Your task to perform on an android device: choose inbox layout in the gmail app Image 0: 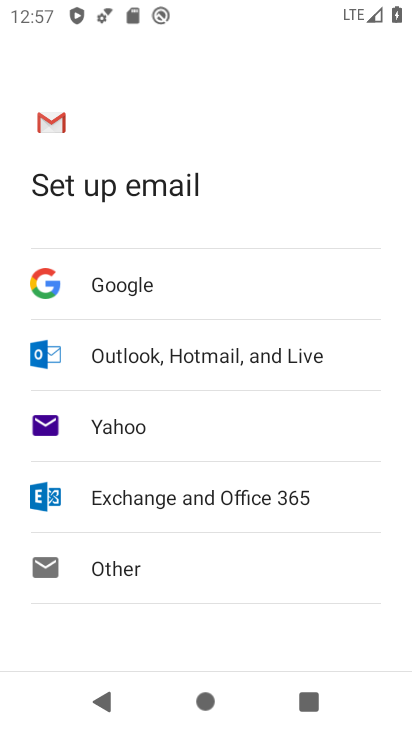
Step 0: press home button
Your task to perform on an android device: choose inbox layout in the gmail app Image 1: 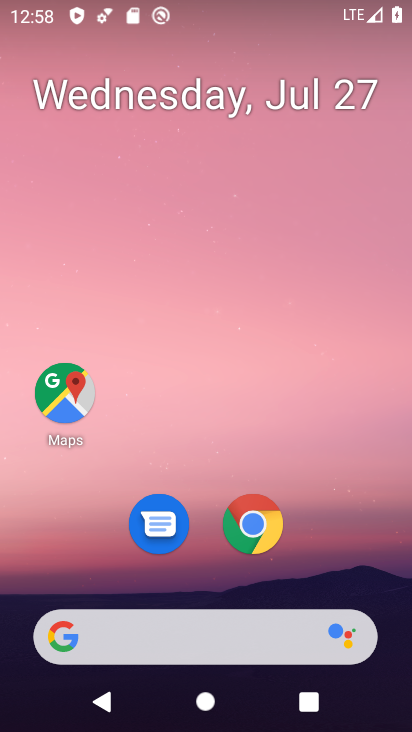
Step 1: drag from (346, 507) to (334, 46)
Your task to perform on an android device: choose inbox layout in the gmail app Image 2: 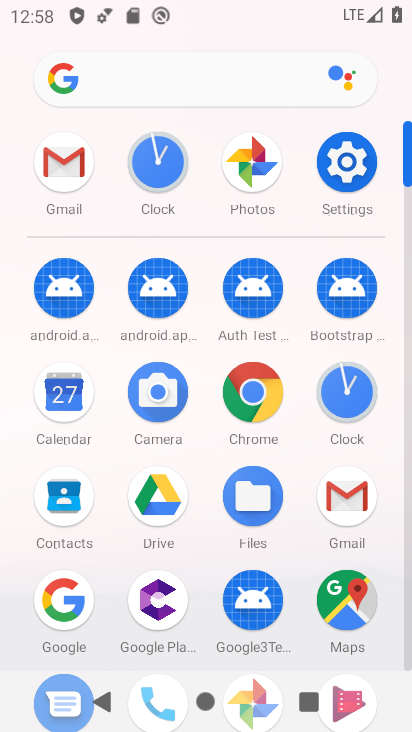
Step 2: click (73, 164)
Your task to perform on an android device: choose inbox layout in the gmail app Image 3: 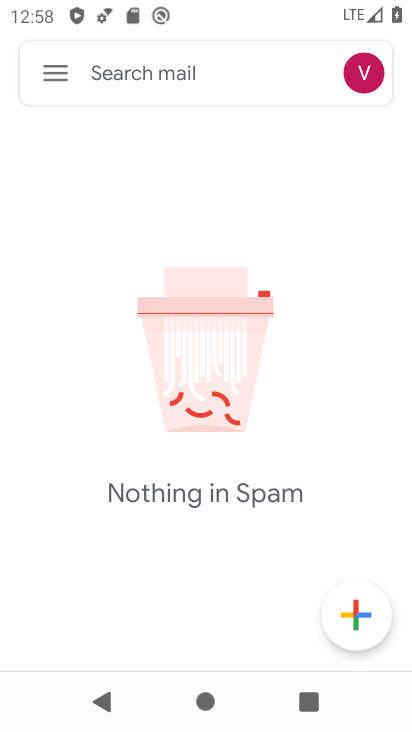
Step 3: click (60, 75)
Your task to perform on an android device: choose inbox layout in the gmail app Image 4: 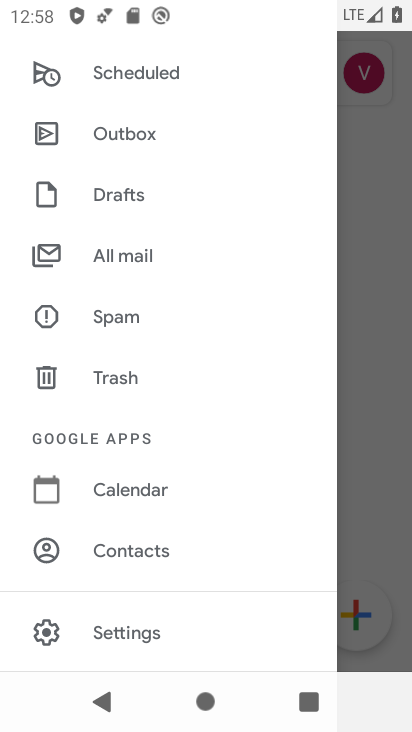
Step 4: click (148, 633)
Your task to perform on an android device: choose inbox layout in the gmail app Image 5: 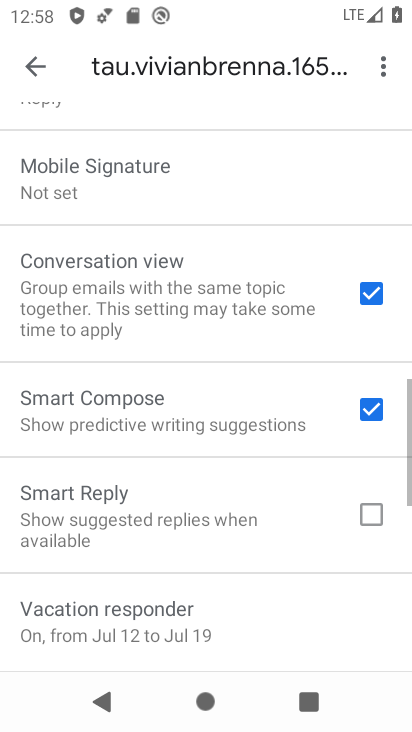
Step 5: drag from (215, 197) to (218, 576)
Your task to perform on an android device: choose inbox layout in the gmail app Image 6: 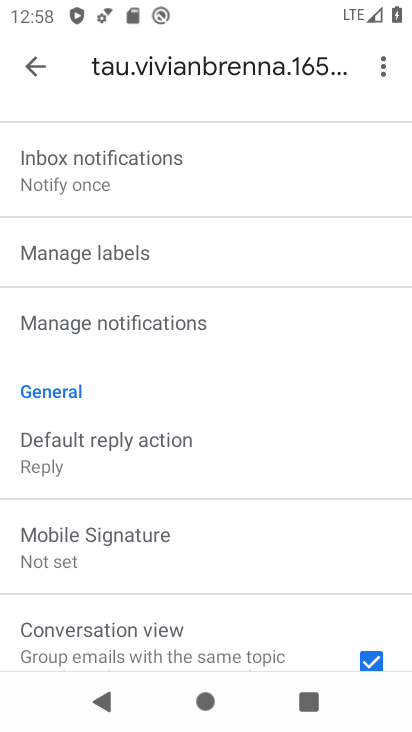
Step 6: drag from (266, 197) to (266, 595)
Your task to perform on an android device: choose inbox layout in the gmail app Image 7: 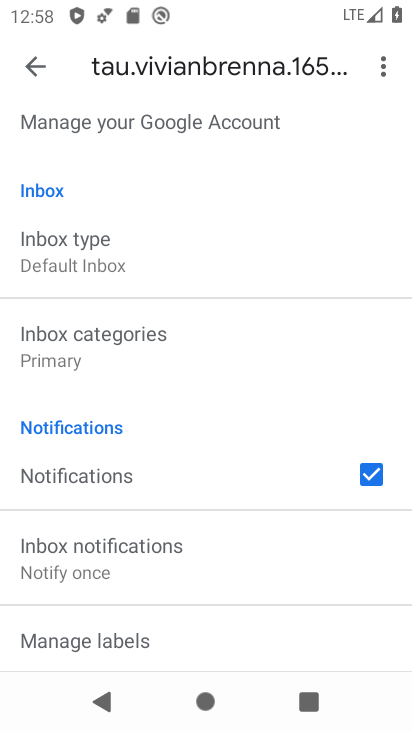
Step 7: click (99, 251)
Your task to perform on an android device: choose inbox layout in the gmail app Image 8: 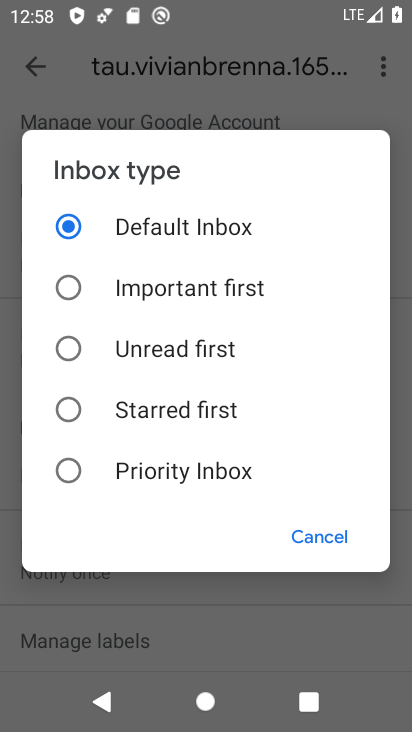
Step 8: click (67, 273)
Your task to perform on an android device: choose inbox layout in the gmail app Image 9: 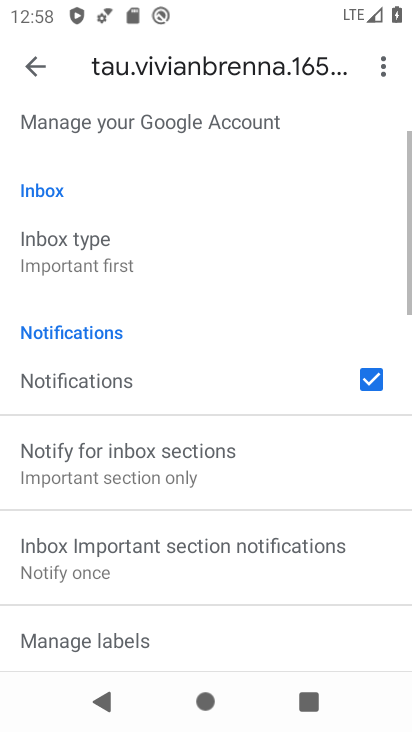
Step 9: task complete